Your task to perform on an android device: turn vacation reply on in the gmail app Image 0: 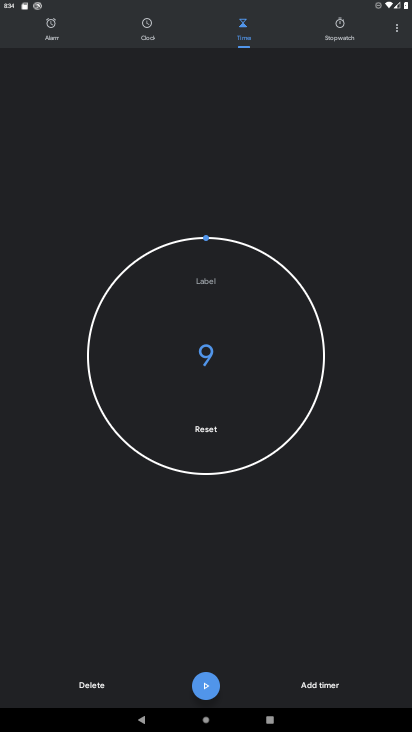
Step 0: press home button
Your task to perform on an android device: turn vacation reply on in the gmail app Image 1: 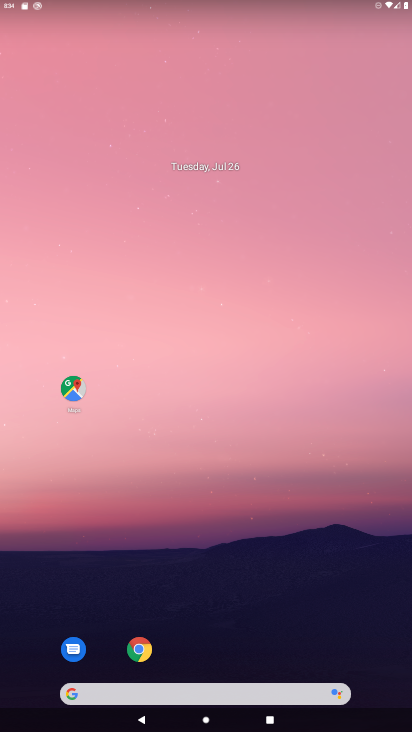
Step 1: drag from (295, 648) to (319, 19)
Your task to perform on an android device: turn vacation reply on in the gmail app Image 2: 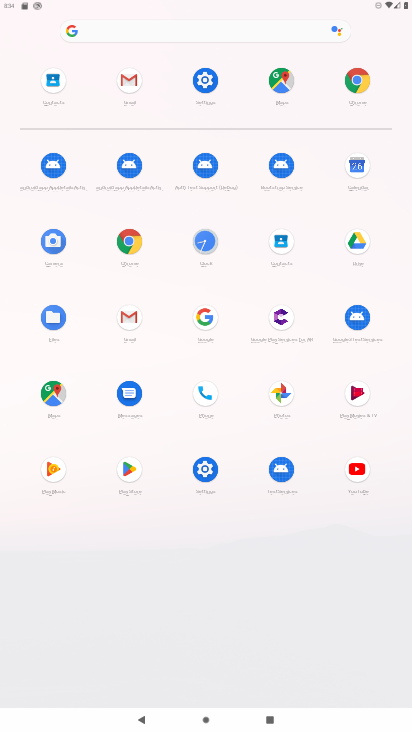
Step 2: click (129, 79)
Your task to perform on an android device: turn vacation reply on in the gmail app Image 3: 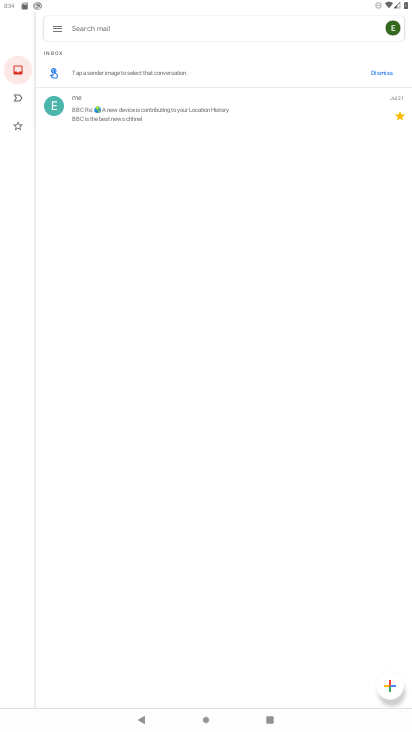
Step 3: click (63, 29)
Your task to perform on an android device: turn vacation reply on in the gmail app Image 4: 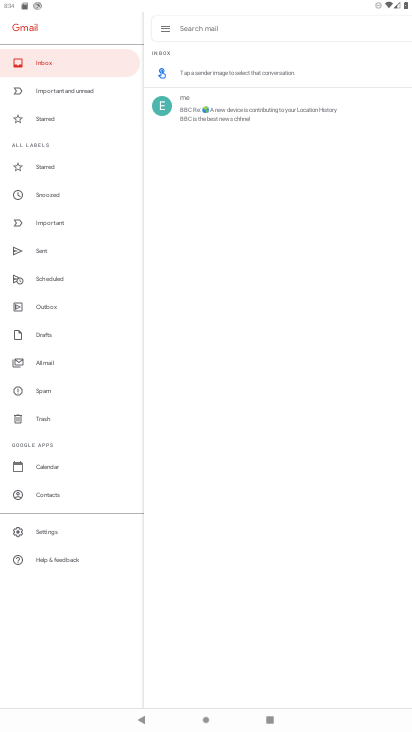
Step 4: click (63, 531)
Your task to perform on an android device: turn vacation reply on in the gmail app Image 5: 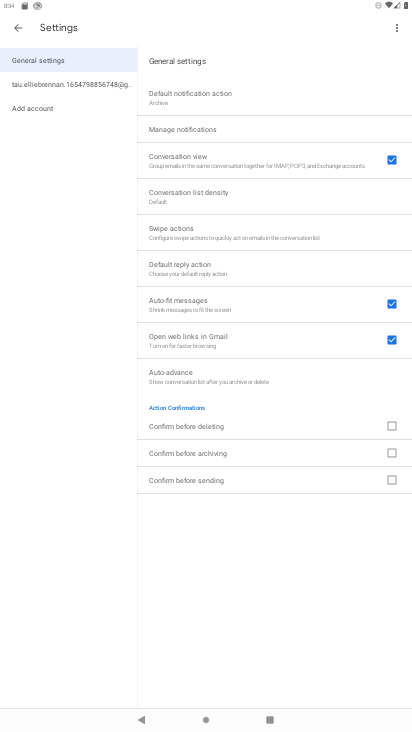
Step 5: click (102, 87)
Your task to perform on an android device: turn vacation reply on in the gmail app Image 6: 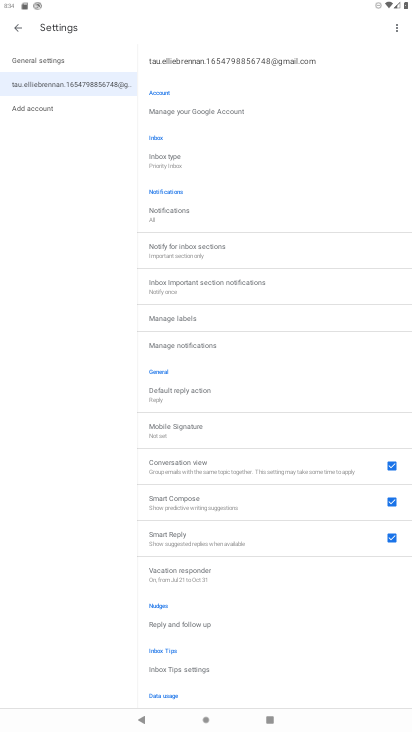
Step 6: click (218, 583)
Your task to perform on an android device: turn vacation reply on in the gmail app Image 7: 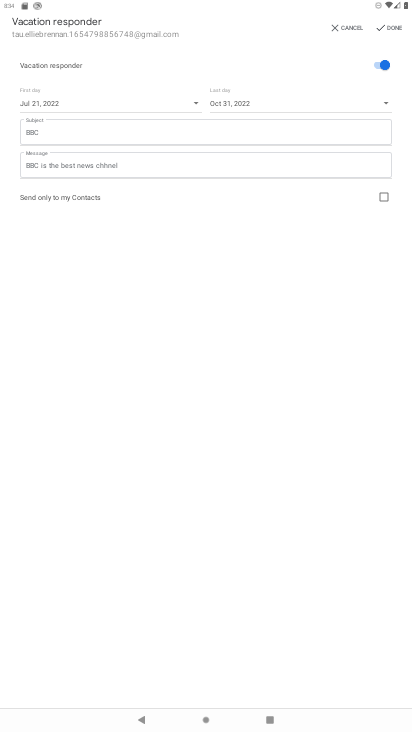
Step 7: click (386, 29)
Your task to perform on an android device: turn vacation reply on in the gmail app Image 8: 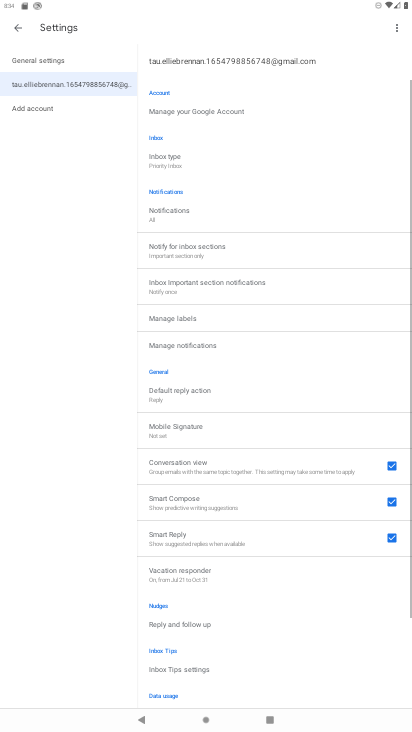
Step 8: task complete